Your task to perform on an android device: Open Google Chrome and open the bookmarks view Image 0: 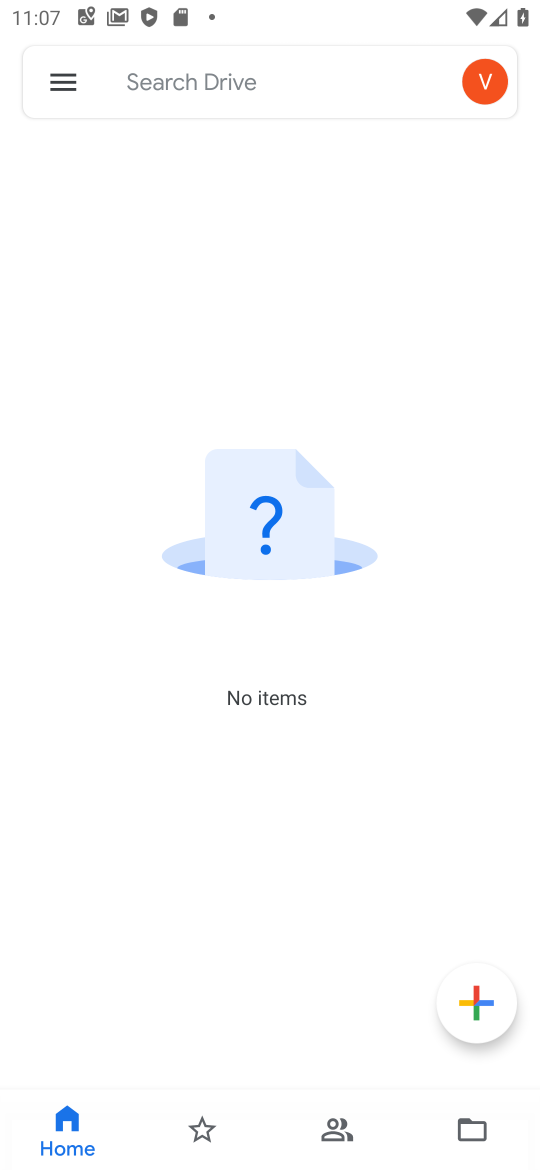
Step 0: press home button
Your task to perform on an android device: Open Google Chrome and open the bookmarks view Image 1: 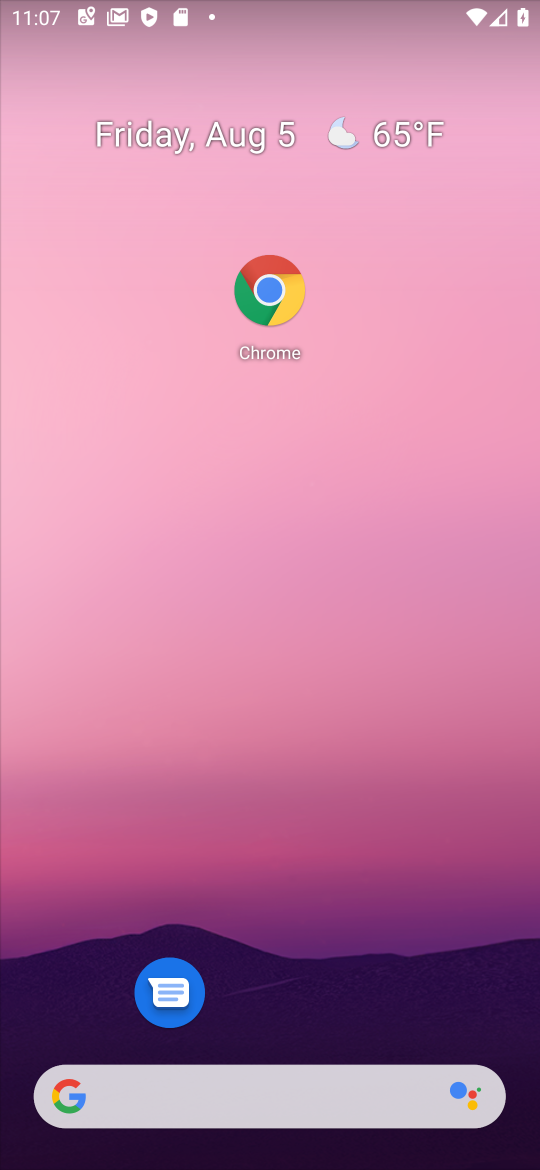
Step 1: drag from (399, 954) to (397, 57)
Your task to perform on an android device: Open Google Chrome and open the bookmarks view Image 2: 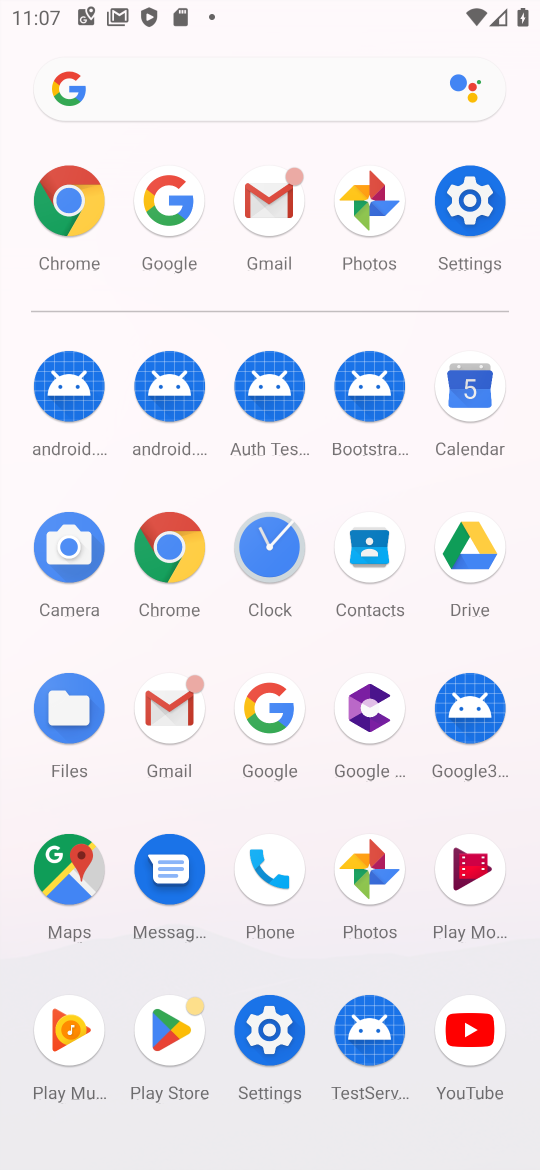
Step 2: click (44, 212)
Your task to perform on an android device: Open Google Chrome and open the bookmarks view Image 3: 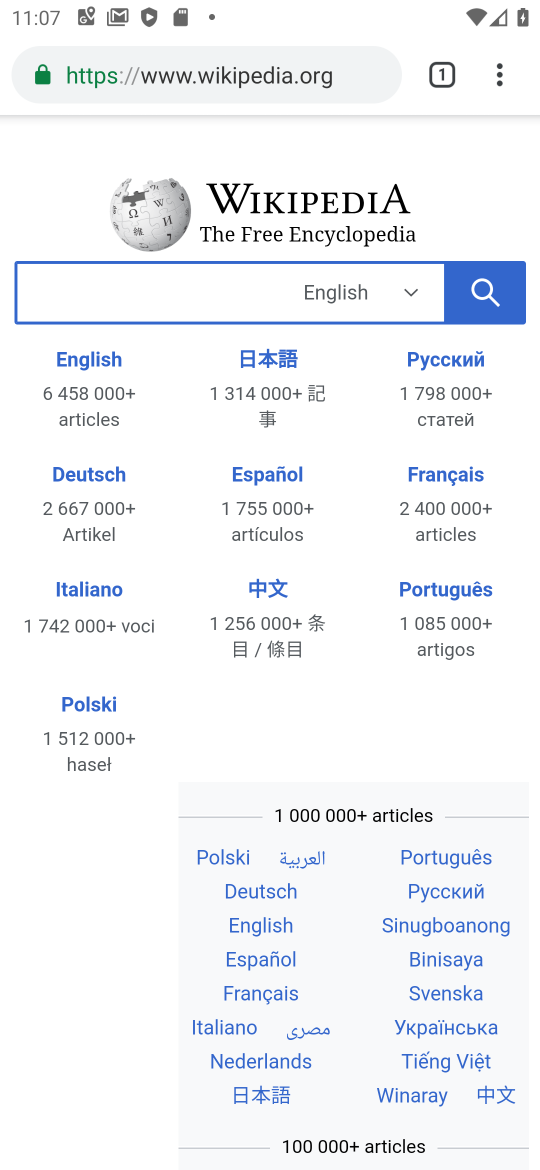
Step 3: drag from (506, 86) to (243, 293)
Your task to perform on an android device: Open Google Chrome and open the bookmarks view Image 4: 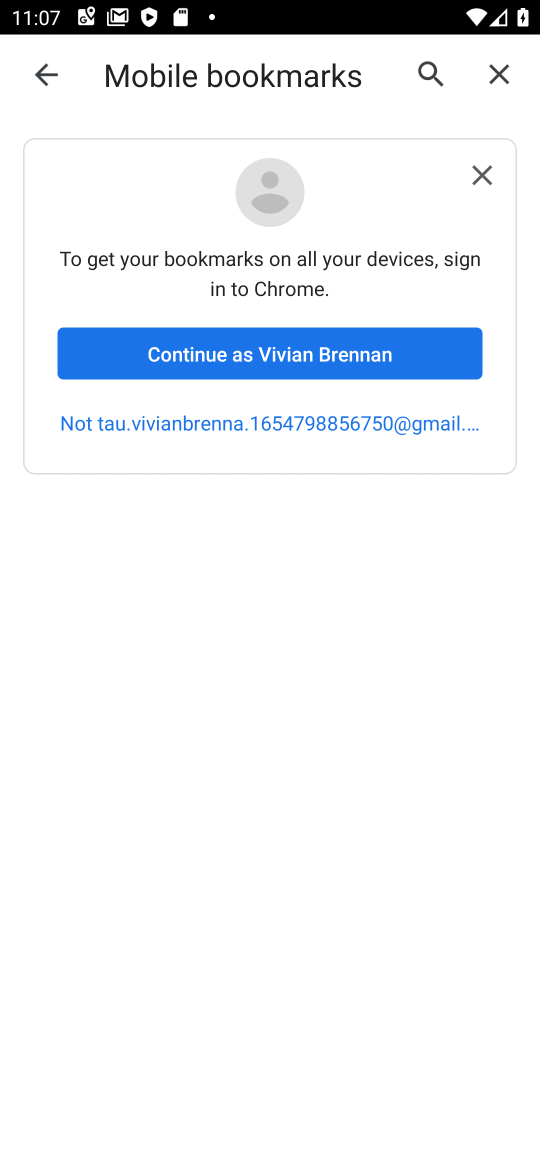
Step 4: click (179, 350)
Your task to perform on an android device: Open Google Chrome and open the bookmarks view Image 5: 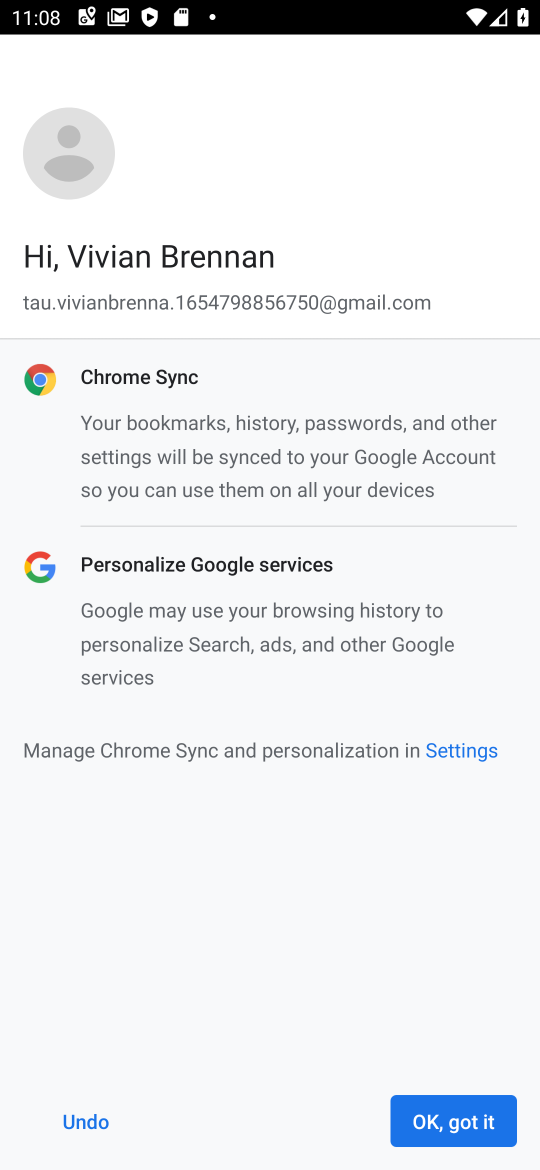
Step 5: click (477, 1126)
Your task to perform on an android device: Open Google Chrome and open the bookmarks view Image 6: 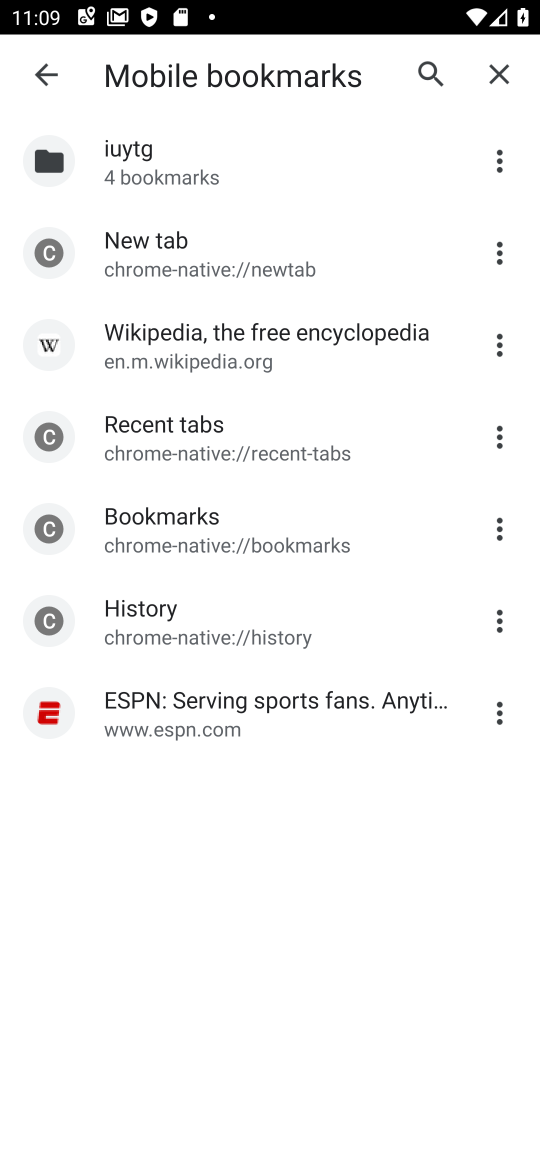
Step 6: task complete